Your task to perform on an android device: Open the calendar app, open the side menu, and click the "Day" option Image 0: 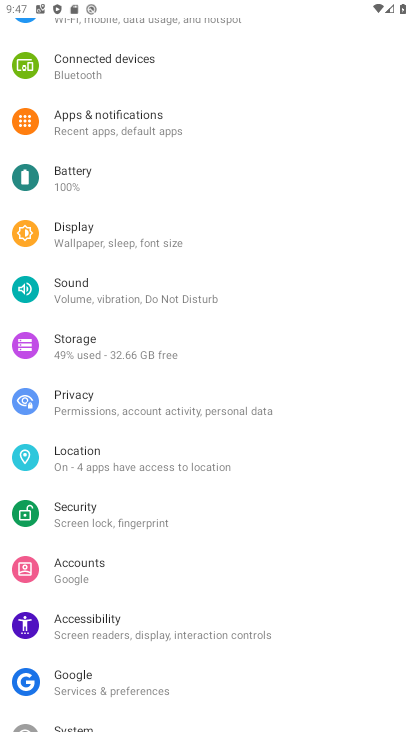
Step 0: press home button
Your task to perform on an android device: Open the calendar app, open the side menu, and click the "Day" option Image 1: 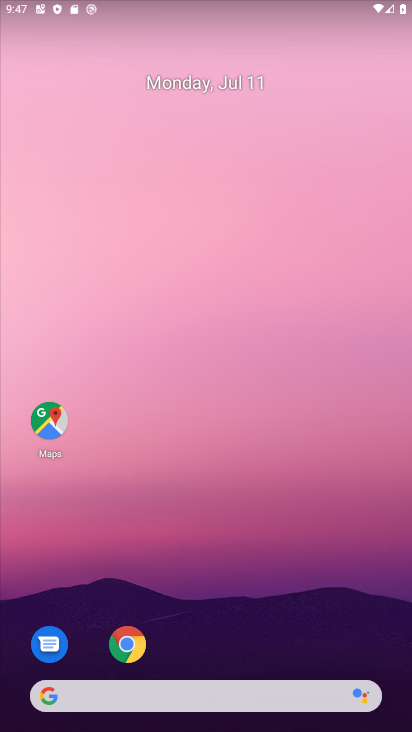
Step 1: drag from (217, 655) to (248, 45)
Your task to perform on an android device: Open the calendar app, open the side menu, and click the "Day" option Image 2: 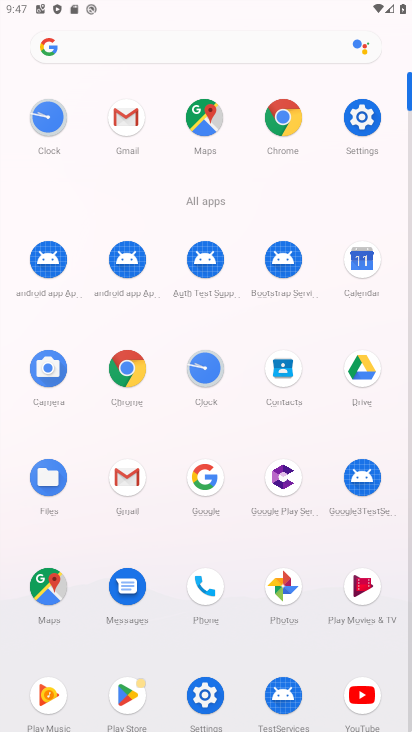
Step 2: click (362, 248)
Your task to perform on an android device: Open the calendar app, open the side menu, and click the "Day" option Image 3: 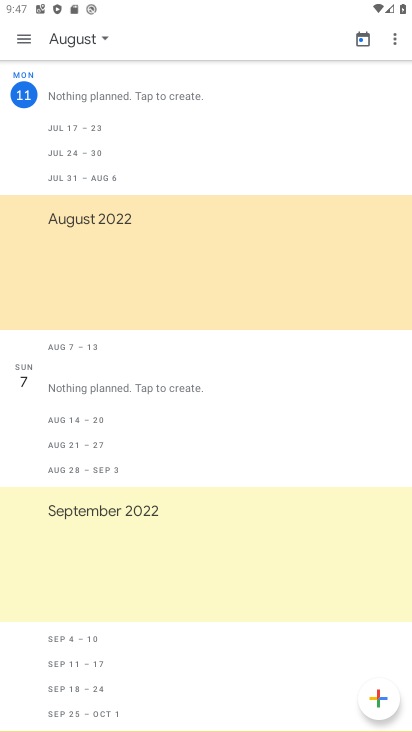
Step 3: click (19, 35)
Your task to perform on an android device: Open the calendar app, open the side menu, and click the "Day" option Image 4: 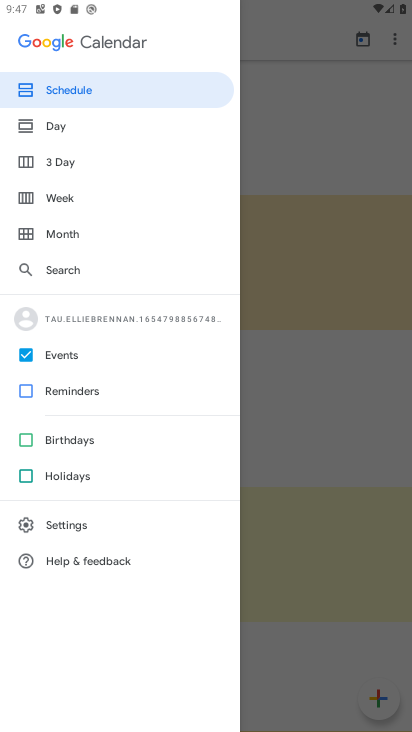
Step 4: click (49, 118)
Your task to perform on an android device: Open the calendar app, open the side menu, and click the "Day" option Image 5: 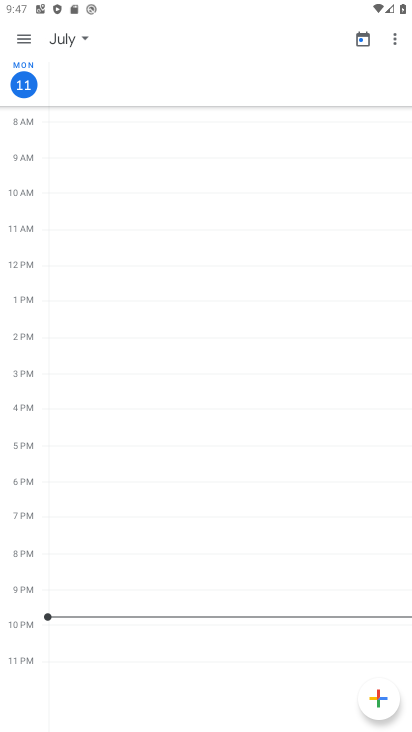
Step 5: task complete